Your task to perform on an android device: toggle show notifications on the lock screen Image 0: 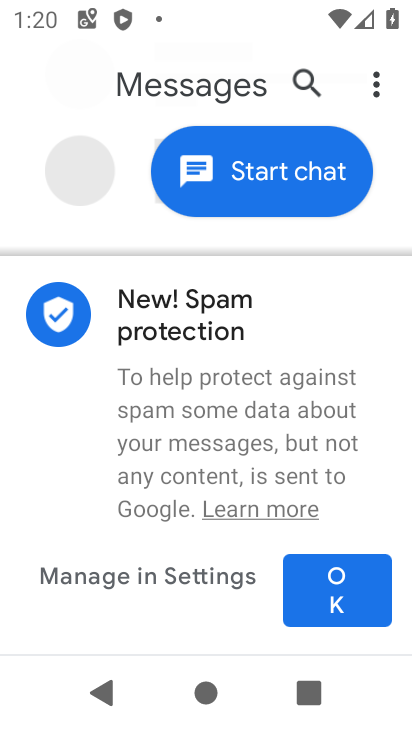
Step 0: press home button
Your task to perform on an android device: toggle show notifications on the lock screen Image 1: 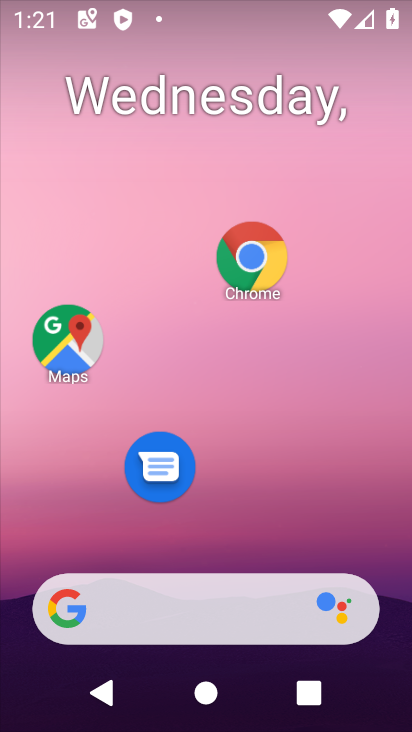
Step 1: drag from (388, 722) to (304, 84)
Your task to perform on an android device: toggle show notifications on the lock screen Image 2: 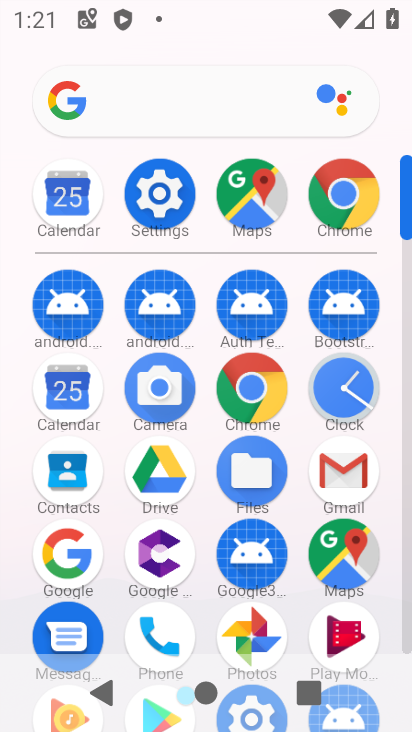
Step 2: click (143, 160)
Your task to perform on an android device: toggle show notifications on the lock screen Image 3: 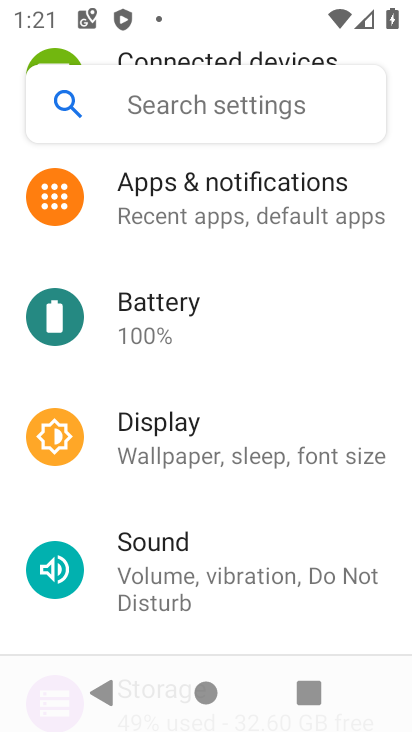
Step 3: click (158, 226)
Your task to perform on an android device: toggle show notifications on the lock screen Image 4: 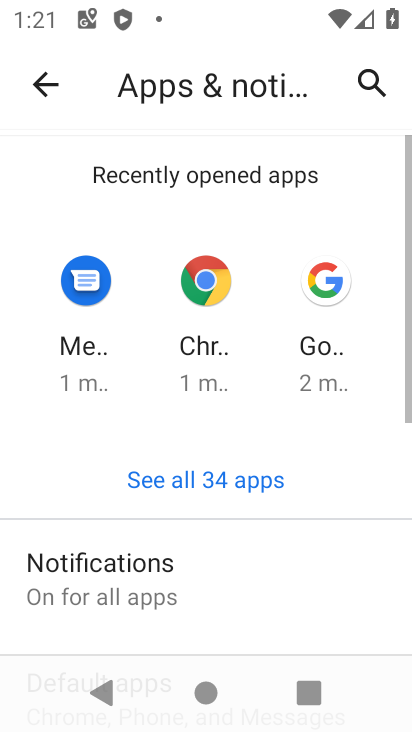
Step 4: click (140, 556)
Your task to perform on an android device: toggle show notifications on the lock screen Image 5: 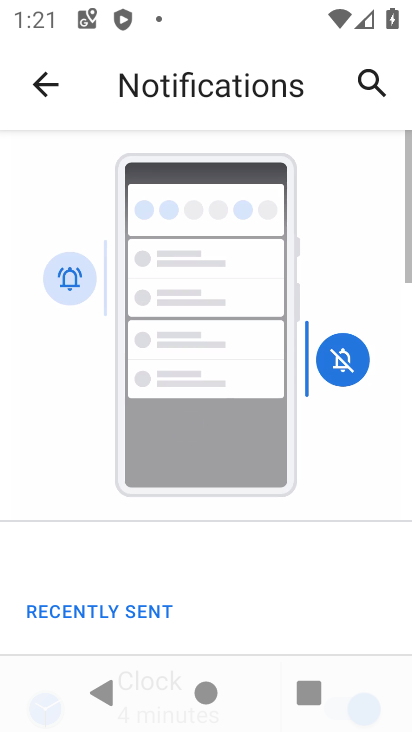
Step 5: drag from (158, 622) to (229, 51)
Your task to perform on an android device: toggle show notifications on the lock screen Image 6: 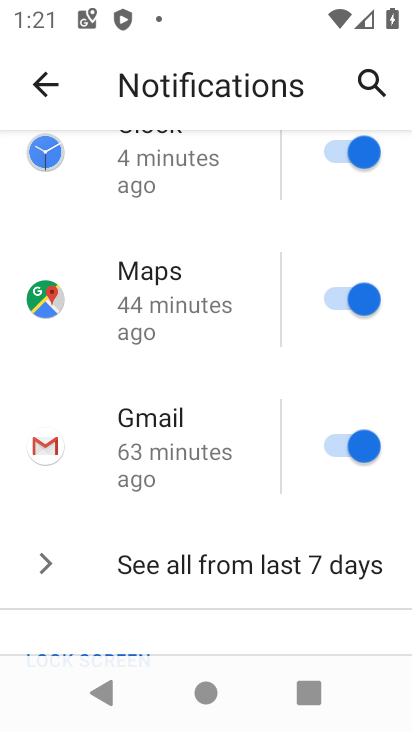
Step 6: drag from (275, 590) to (270, 148)
Your task to perform on an android device: toggle show notifications on the lock screen Image 7: 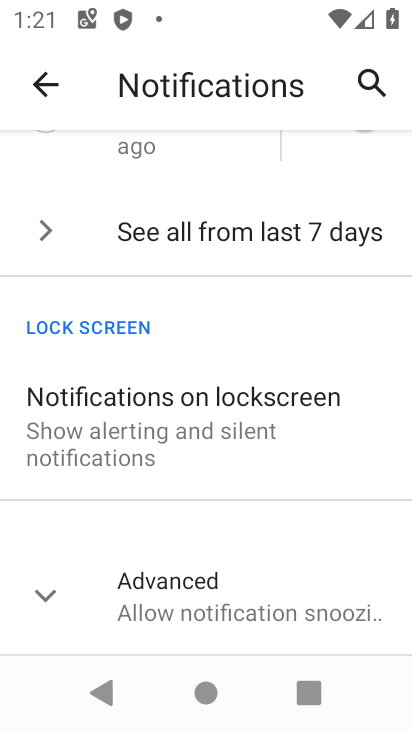
Step 7: click (253, 429)
Your task to perform on an android device: toggle show notifications on the lock screen Image 8: 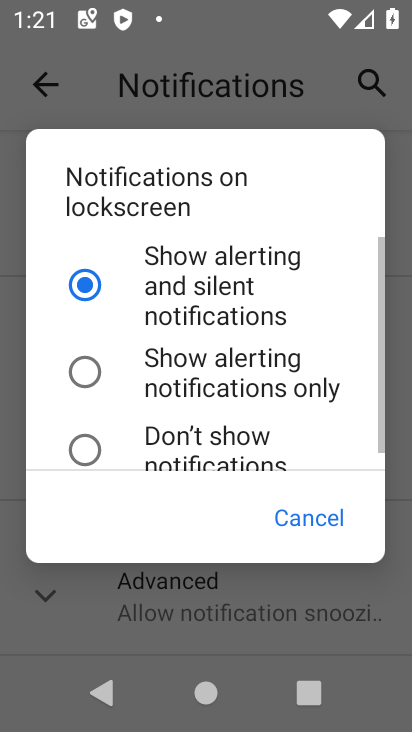
Step 8: click (202, 412)
Your task to perform on an android device: toggle show notifications on the lock screen Image 9: 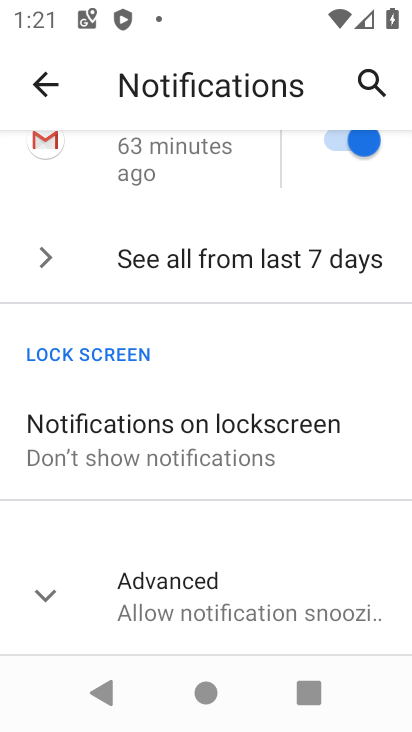
Step 9: task complete